Your task to perform on an android device: make emails show in primary in the gmail app Image 0: 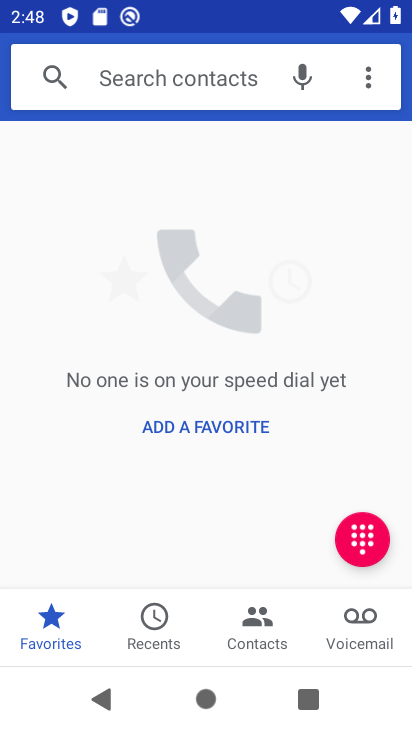
Step 0: press home button
Your task to perform on an android device: make emails show in primary in the gmail app Image 1: 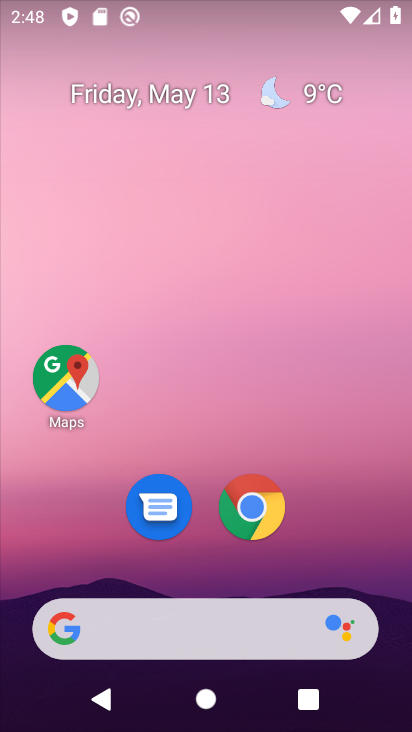
Step 1: drag from (182, 663) to (133, 117)
Your task to perform on an android device: make emails show in primary in the gmail app Image 2: 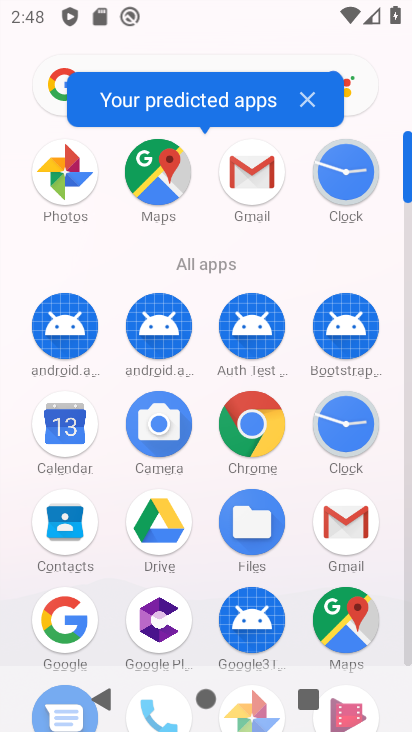
Step 2: click (256, 188)
Your task to perform on an android device: make emails show in primary in the gmail app Image 3: 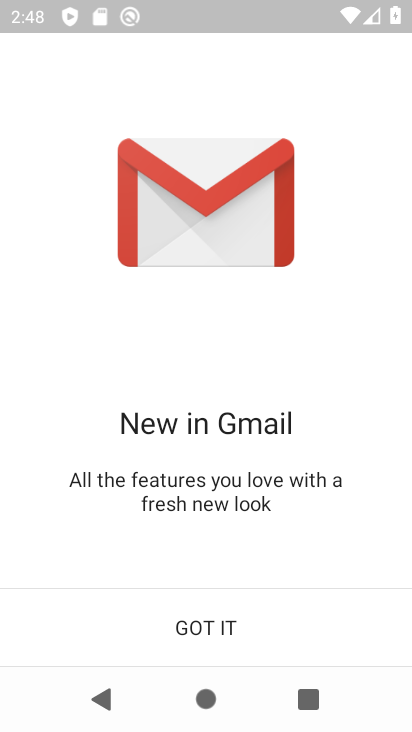
Step 3: click (173, 634)
Your task to perform on an android device: make emails show in primary in the gmail app Image 4: 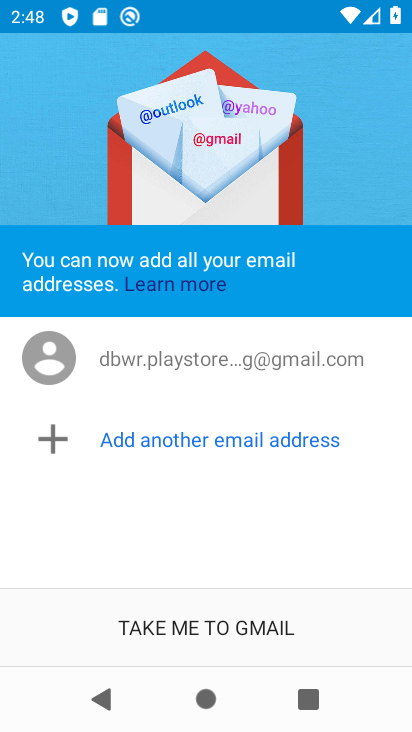
Step 4: click (163, 621)
Your task to perform on an android device: make emails show in primary in the gmail app Image 5: 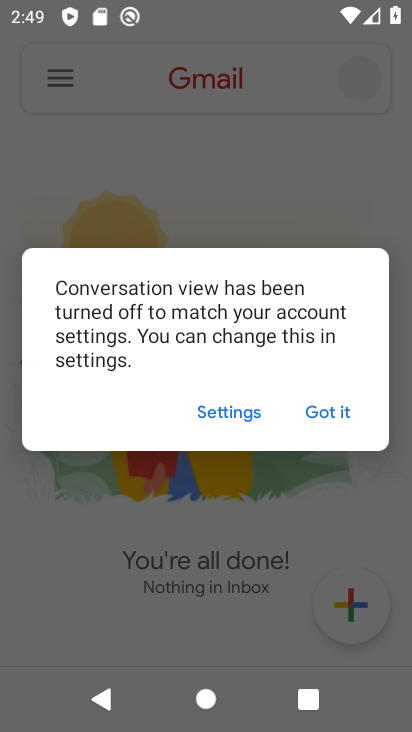
Step 5: click (322, 404)
Your task to perform on an android device: make emails show in primary in the gmail app Image 6: 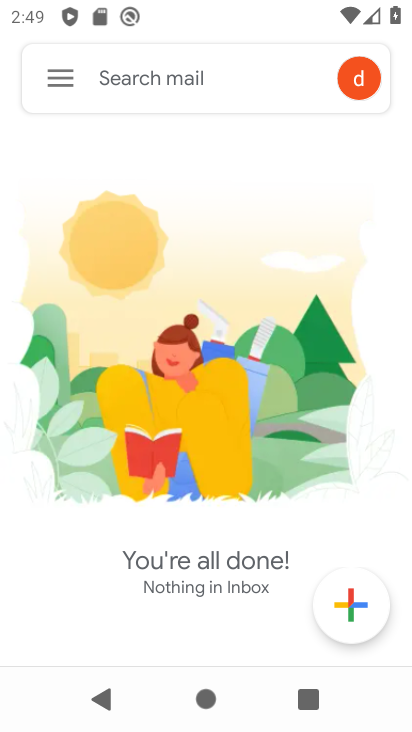
Step 6: click (58, 79)
Your task to perform on an android device: make emails show in primary in the gmail app Image 7: 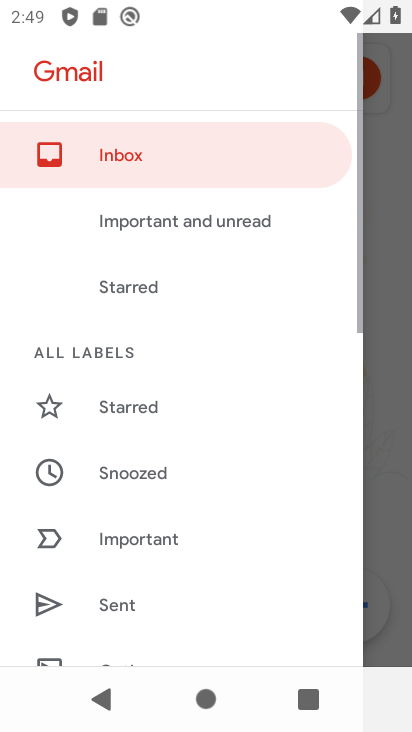
Step 7: drag from (275, 658) to (242, 66)
Your task to perform on an android device: make emails show in primary in the gmail app Image 8: 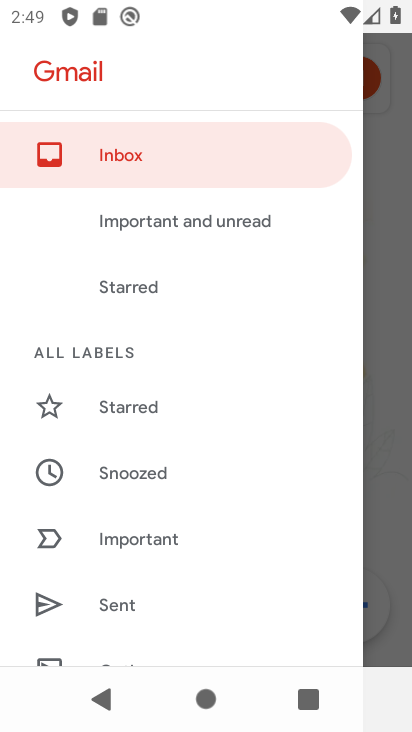
Step 8: drag from (158, 653) to (86, 127)
Your task to perform on an android device: make emails show in primary in the gmail app Image 9: 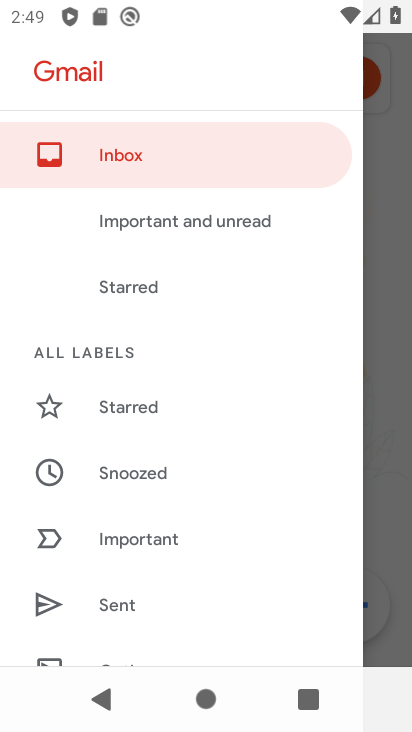
Step 9: drag from (171, 598) to (127, 0)
Your task to perform on an android device: make emails show in primary in the gmail app Image 10: 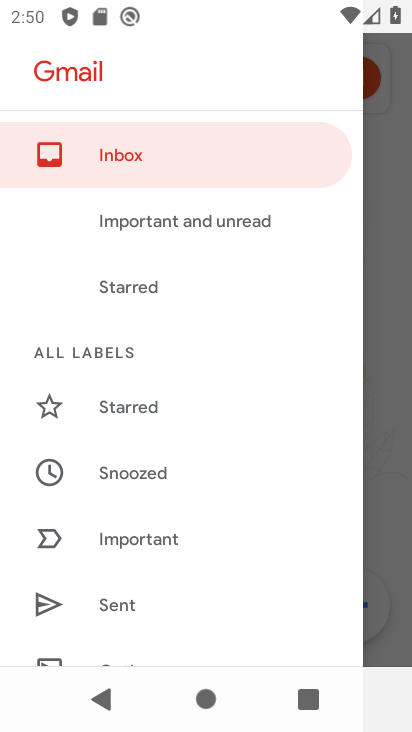
Step 10: drag from (201, 610) to (345, 51)
Your task to perform on an android device: make emails show in primary in the gmail app Image 11: 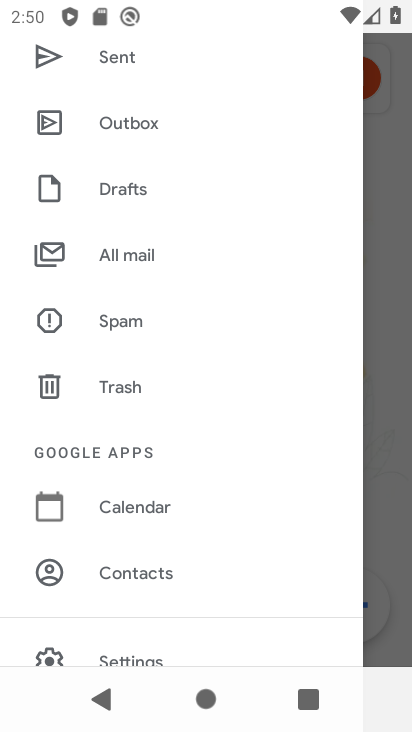
Step 11: drag from (126, 517) to (126, 160)
Your task to perform on an android device: make emails show in primary in the gmail app Image 12: 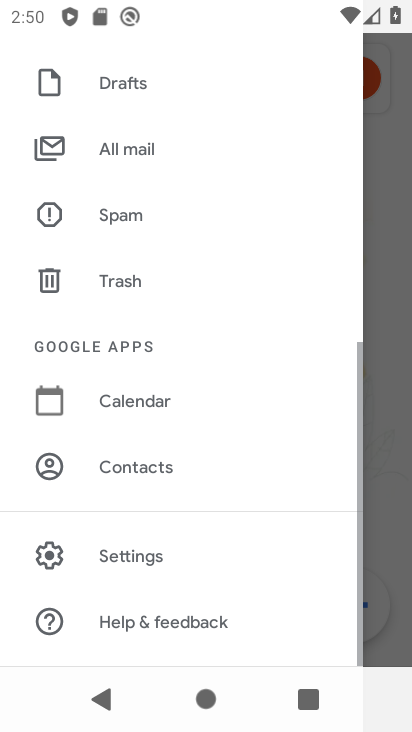
Step 12: click (141, 547)
Your task to perform on an android device: make emails show in primary in the gmail app Image 13: 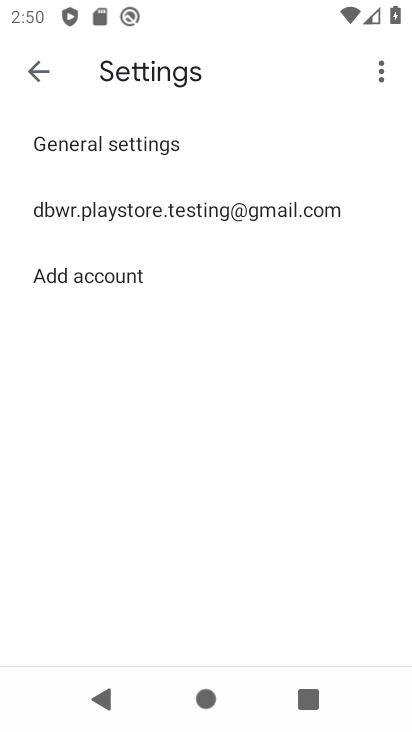
Step 13: click (124, 210)
Your task to perform on an android device: make emails show in primary in the gmail app Image 14: 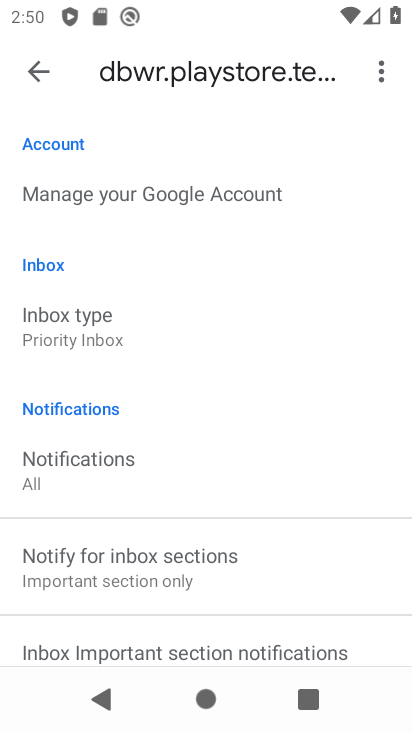
Step 14: click (105, 339)
Your task to perform on an android device: make emails show in primary in the gmail app Image 15: 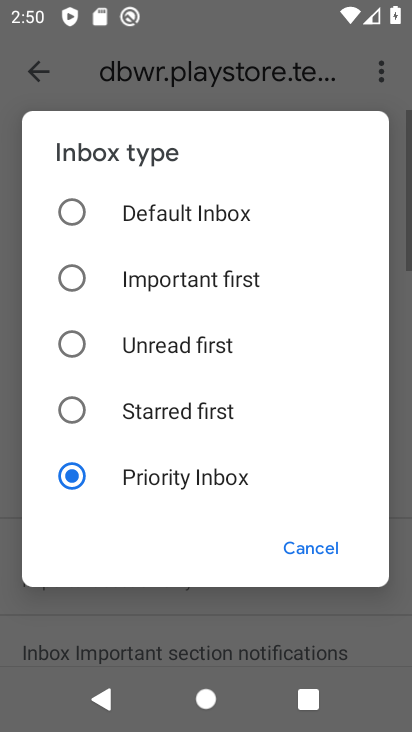
Step 15: click (169, 211)
Your task to perform on an android device: make emails show in primary in the gmail app Image 16: 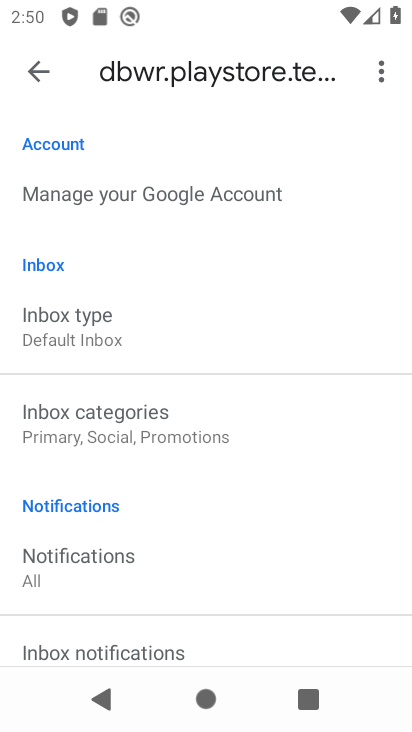
Step 16: click (49, 430)
Your task to perform on an android device: make emails show in primary in the gmail app Image 17: 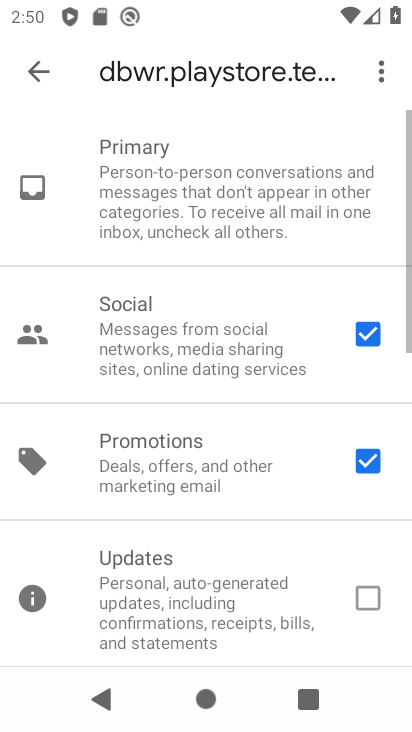
Step 17: click (371, 338)
Your task to perform on an android device: make emails show in primary in the gmail app Image 18: 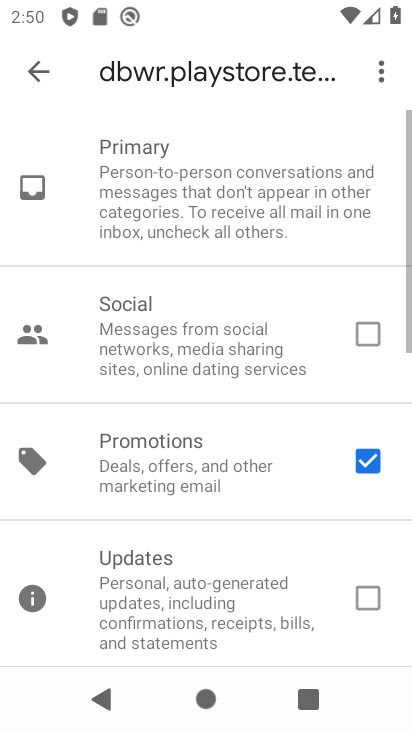
Step 18: click (369, 463)
Your task to perform on an android device: make emails show in primary in the gmail app Image 19: 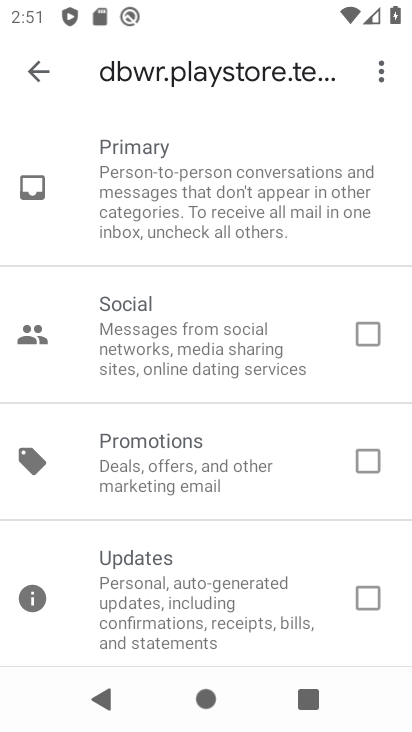
Step 19: task complete